Your task to perform on an android device: open app "Google Photos" Image 0: 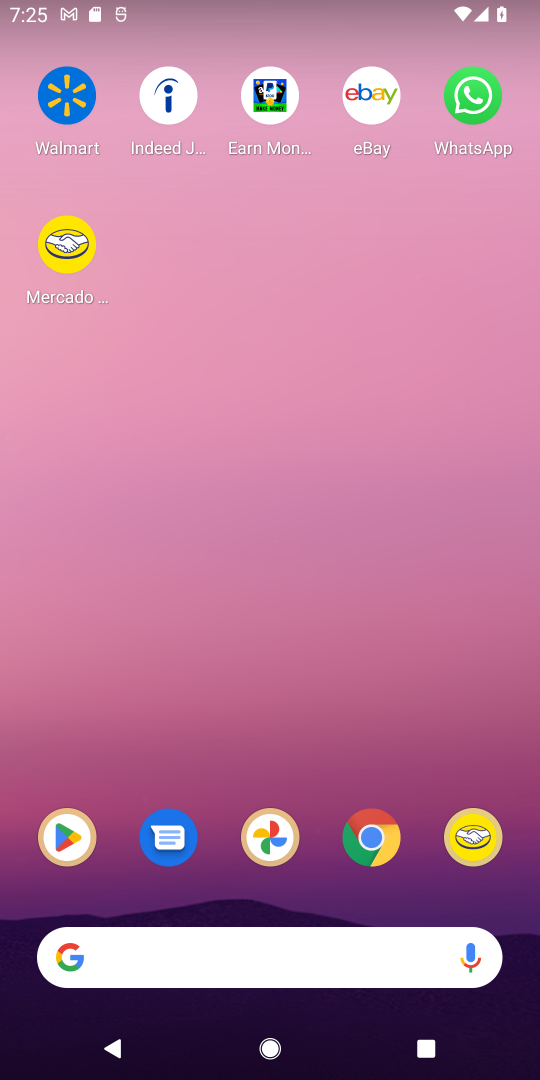
Step 0: click (79, 846)
Your task to perform on an android device: open app "Google Photos" Image 1: 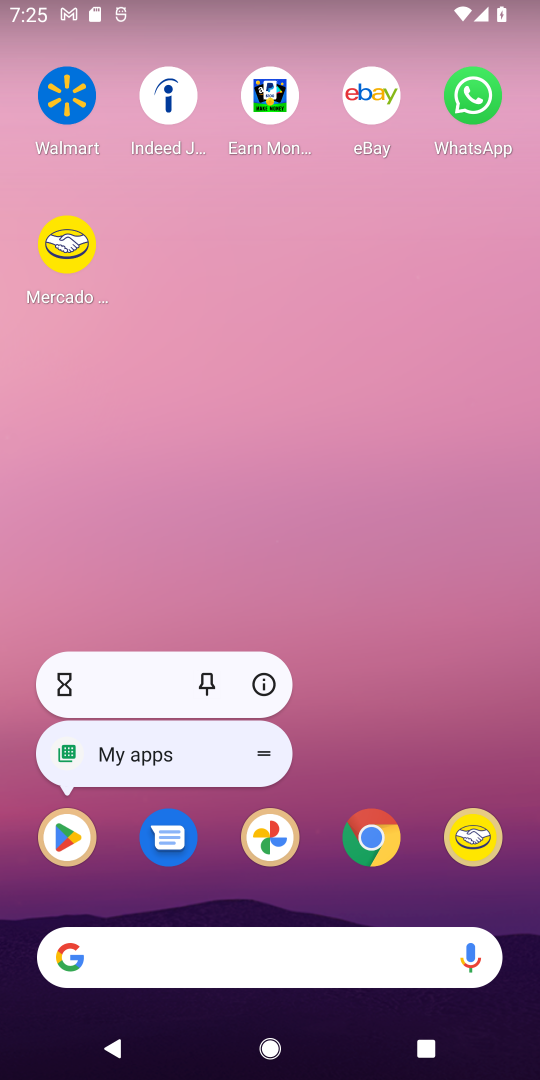
Step 1: click (267, 678)
Your task to perform on an android device: open app "Google Photos" Image 2: 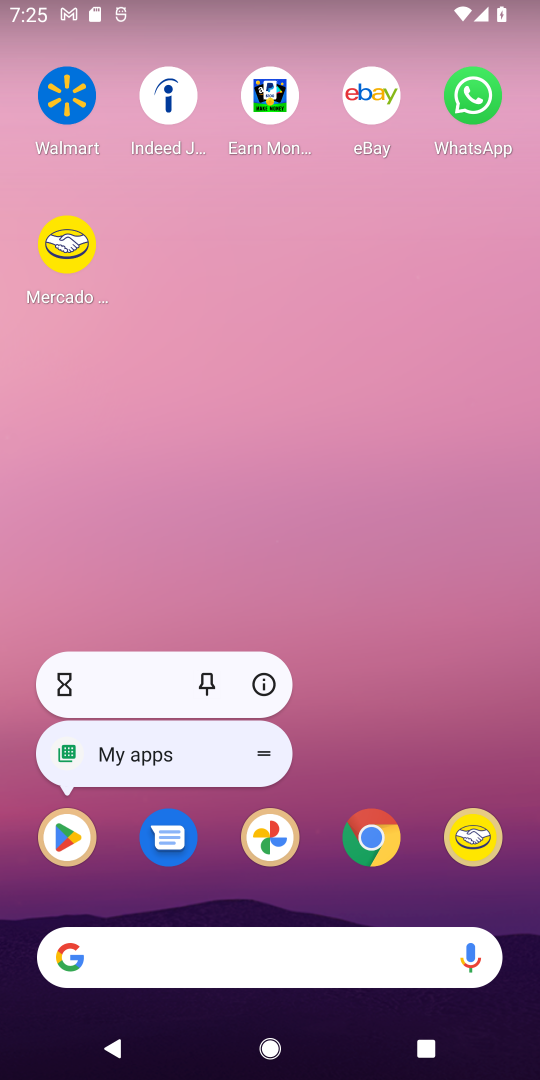
Step 2: click (264, 678)
Your task to perform on an android device: open app "Google Photos" Image 3: 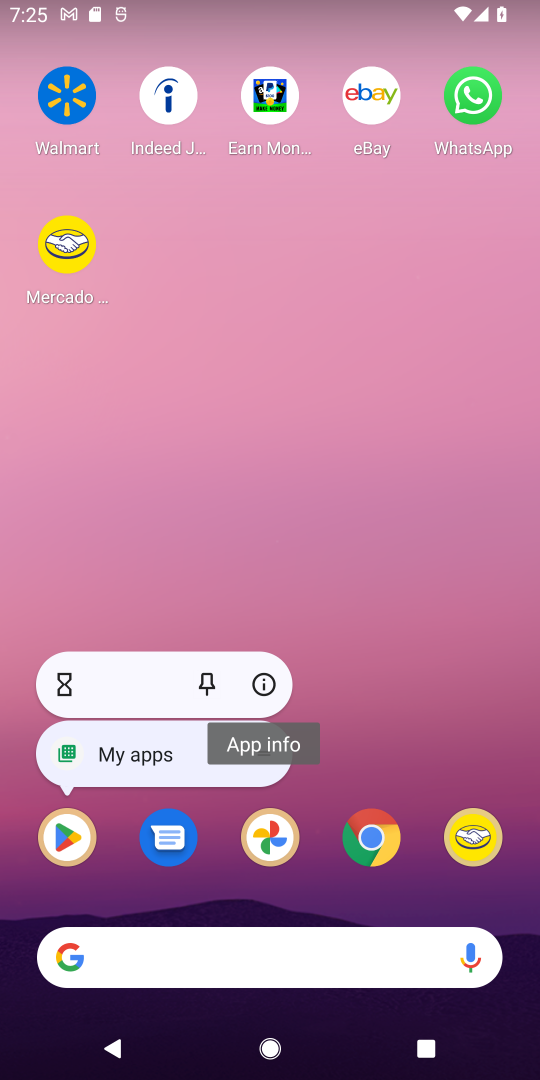
Step 3: click (255, 676)
Your task to perform on an android device: open app "Google Photos" Image 4: 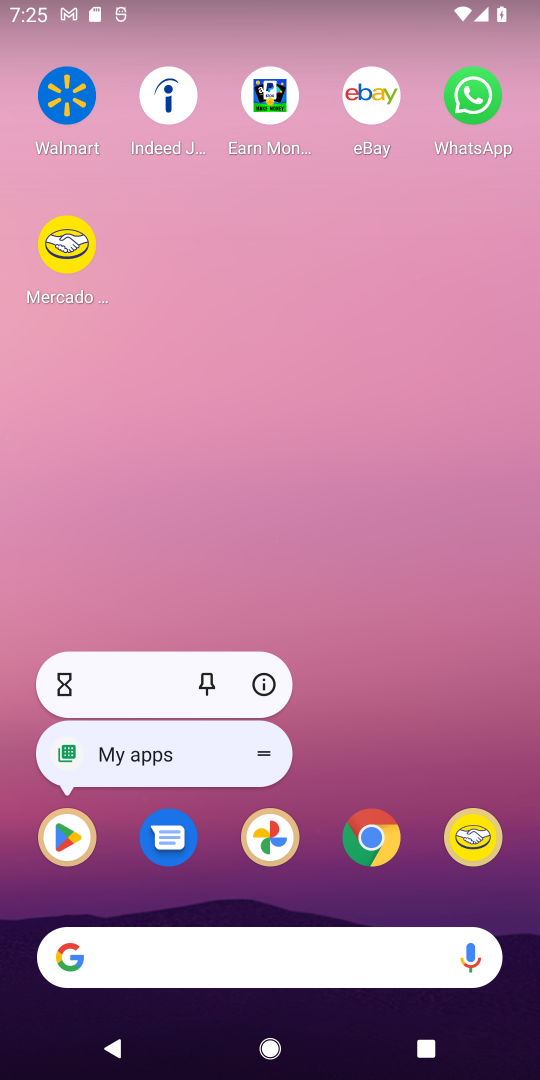
Step 4: click (255, 676)
Your task to perform on an android device: open app "Google Photos" Image 5: 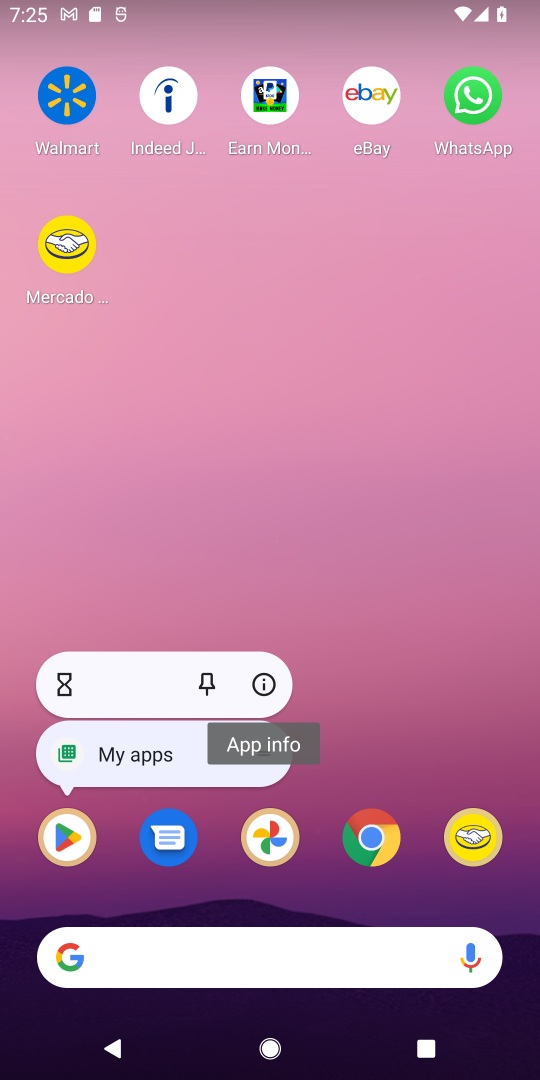
Step 5: click (259, 675)
Your task to perform on an android device: open app "Google Photos" Image 6: 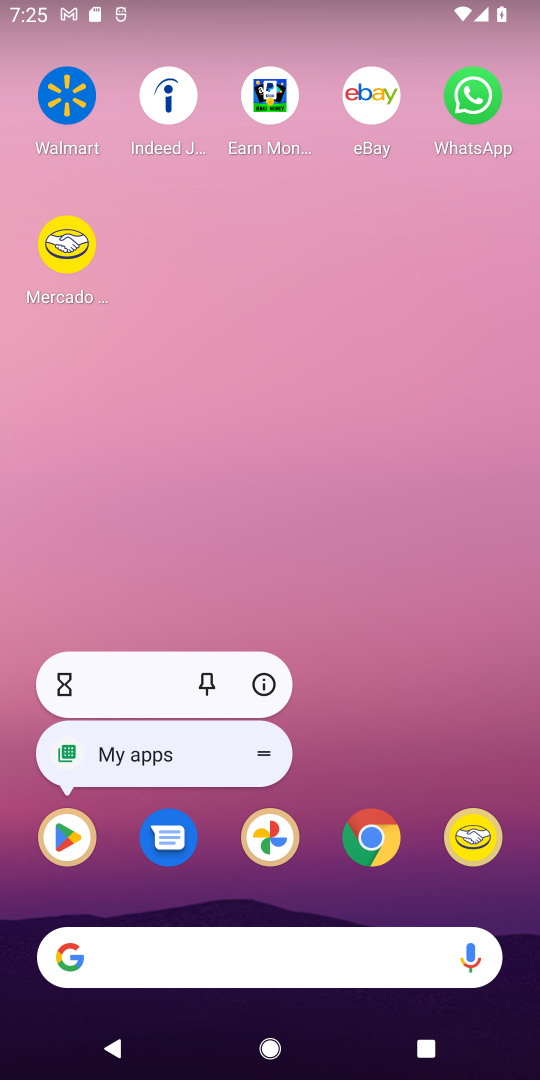
Step 6: click (52, 828)
Your task to perform on an android device: open app "Google Photos" Image 7: 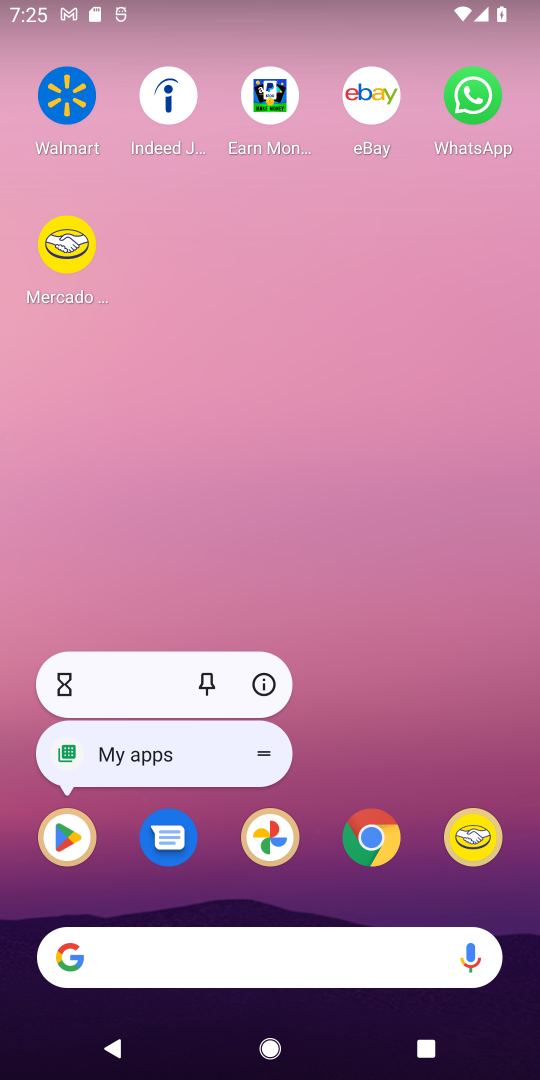
Step 7: click (71, 828)
Your task to perform on an android device: open app "Google Photos" Image 8: 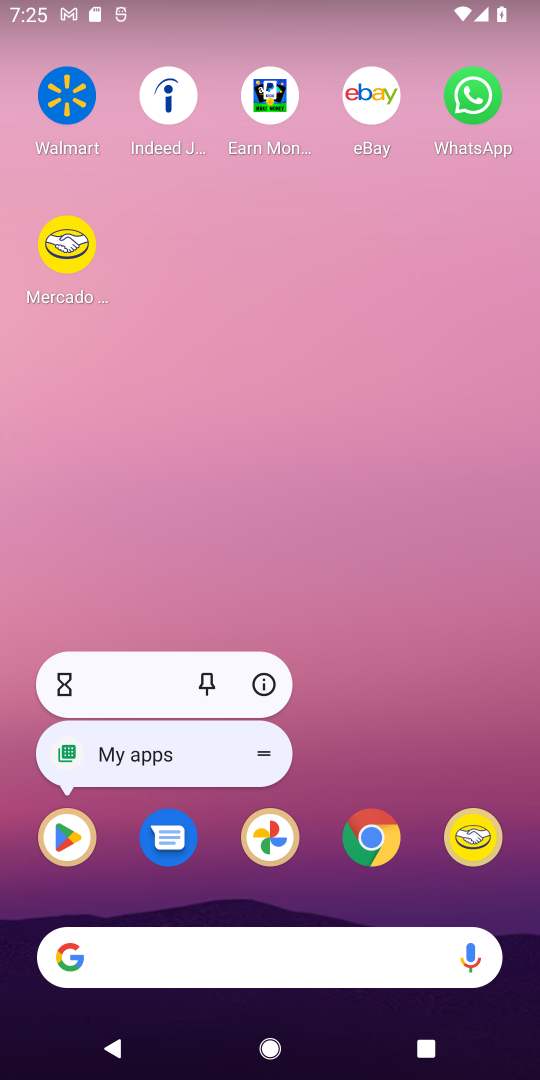
Step 8: click (268, 671)
Your task to perform on an android device: open app "Google Photos" Image 9: 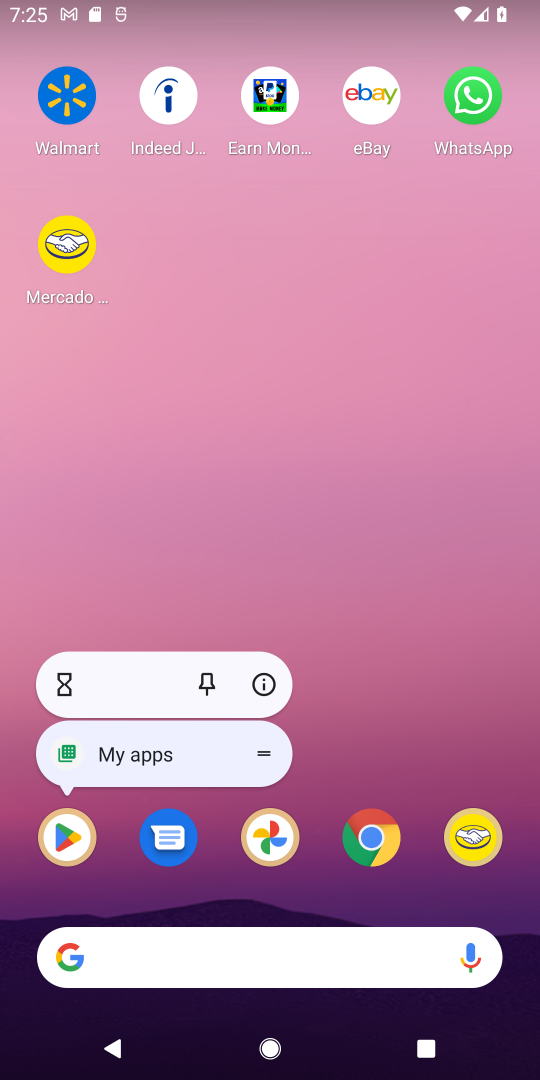
Step 9: click (253, 695)
Your task to perform on an android device: open app "Google Photos" Image 10: 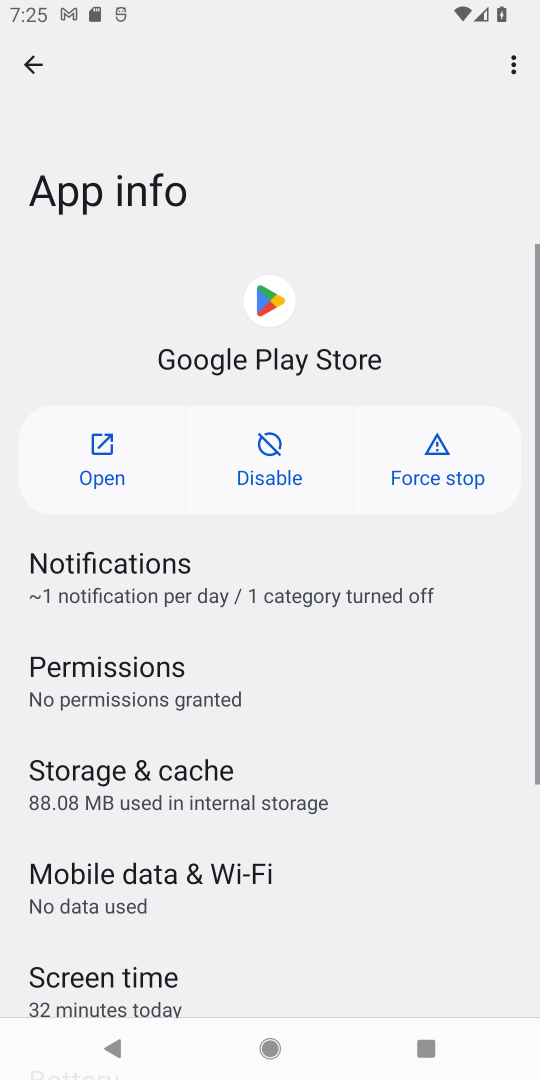
Step 10: click (108, 459)
Your task to perform on an android device: open app "Google Photos" Image 11: 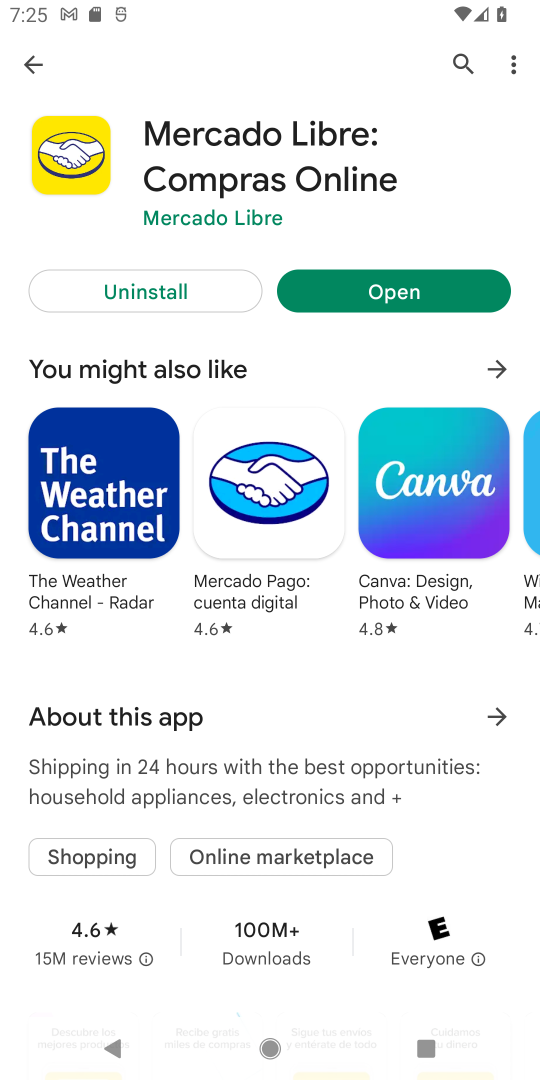
Step 11: click (465, 72)
Your task to perform on an android device: open app "Google Photos" Image 12: 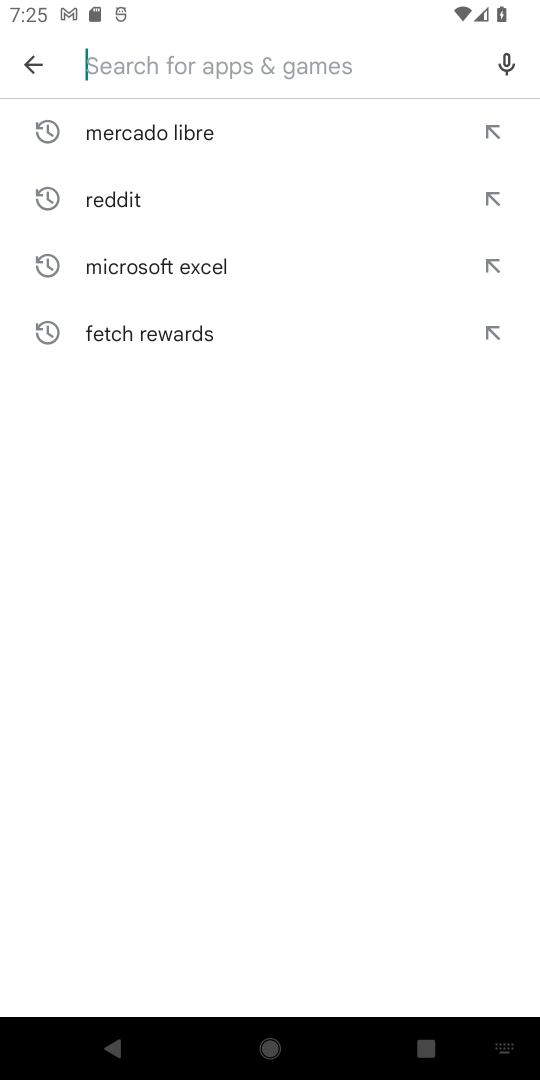
Step 12: type "Google Photos"
Your task to perform on an android device: open app "Google Photos" Image 13: 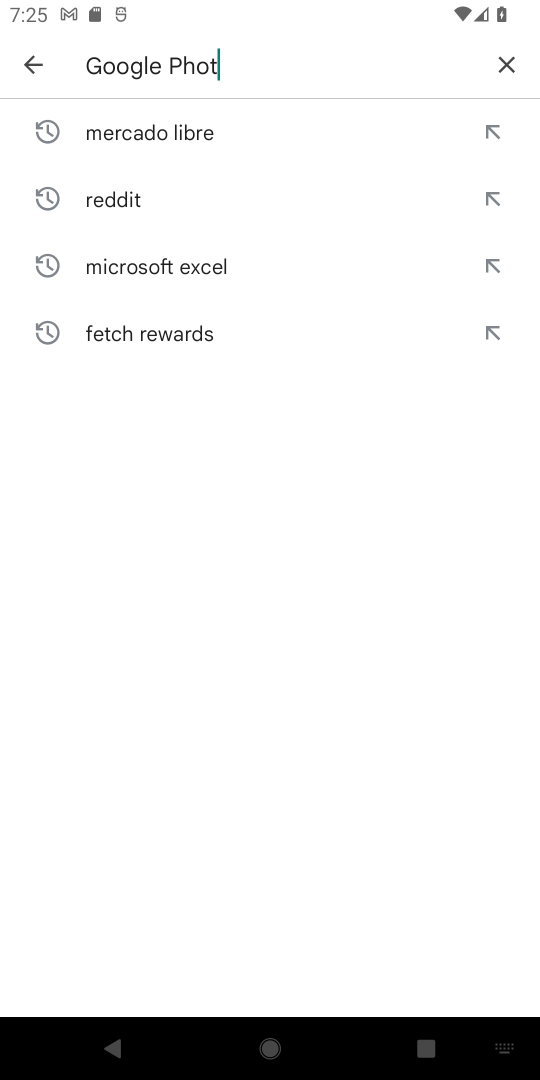
Step 13: type ""
Your task to perform on an android device: open app "Google Photos" Image 14: 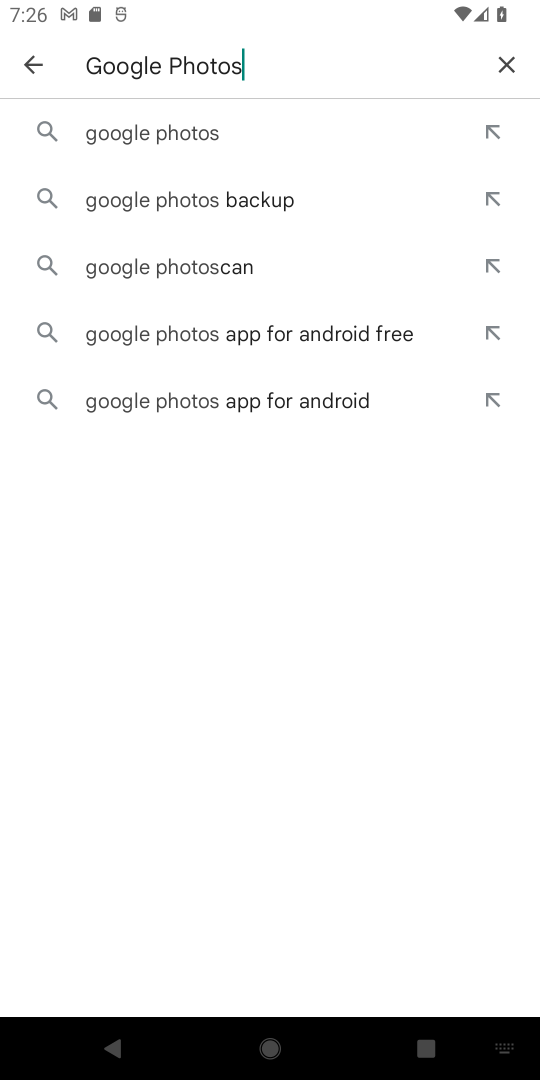
Step 14: click (168, 139)
Your task to perform on an android device: open app "Google Photos" Image 15: 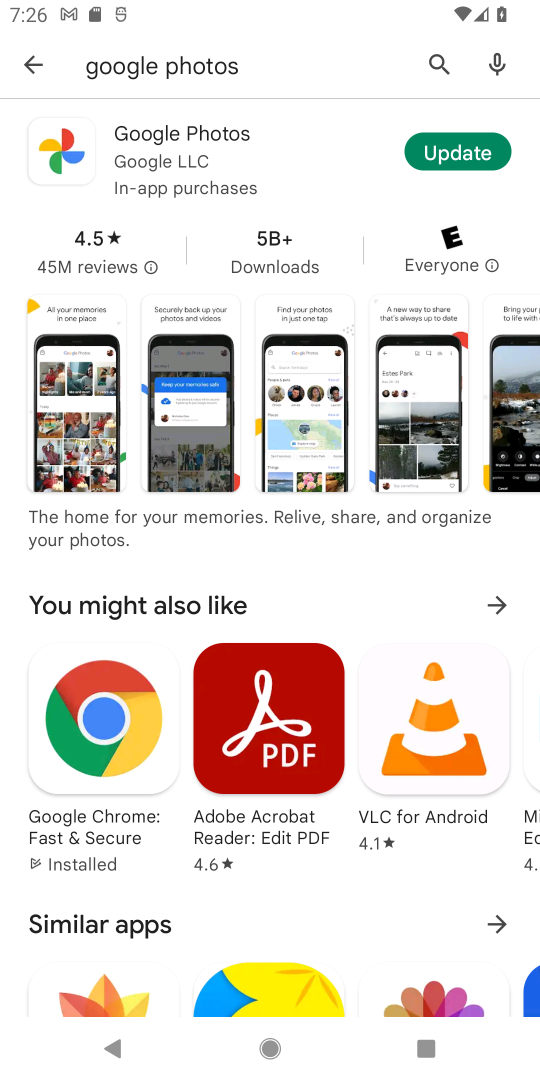
Step 15: click (199, 136)
Your task to perform on an android device: open app "Google Photos" Image 16: 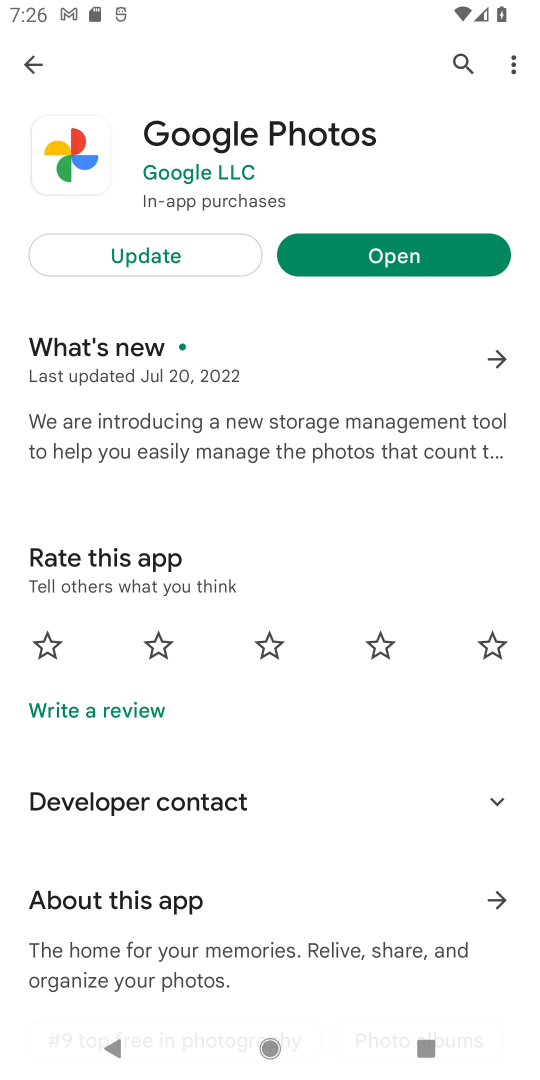
Step 16: click (359, 250)
Your task to perform on an android device: open app "Google Photos" Image 17: 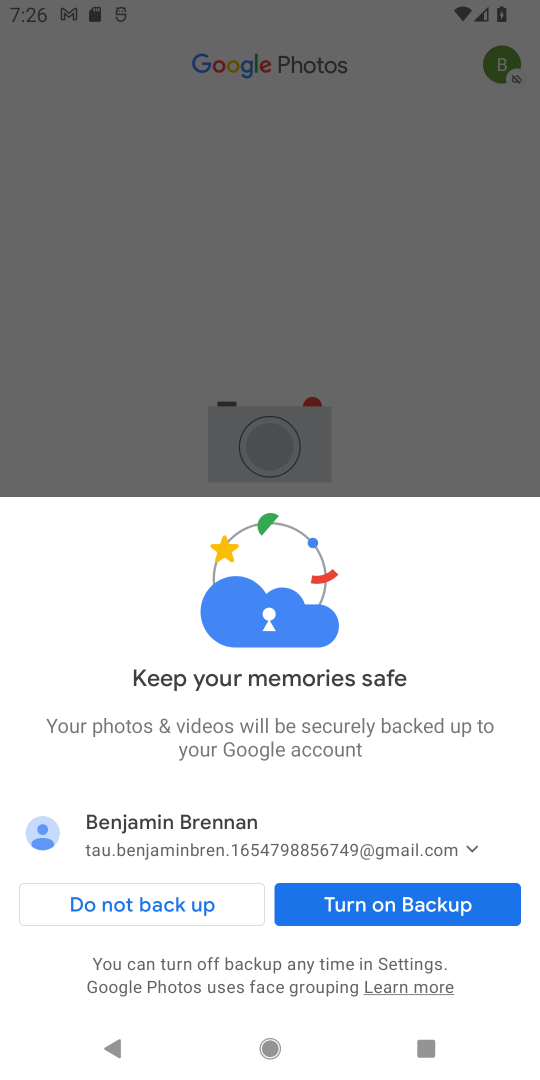
Step 17: task complete